Your task to perform on an android device: turn on notifications settings in the gmail app Image 0: 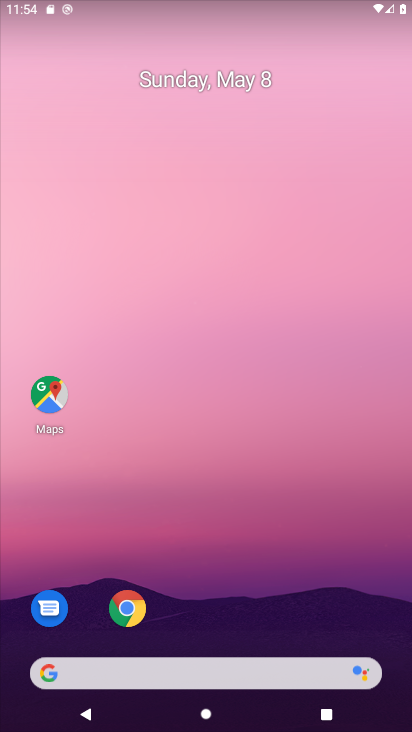
Step 0: drag from (264, 648) to (300, 269)
Your task to perform on an android device: turn on notifications settings in the gmail app Image 1: 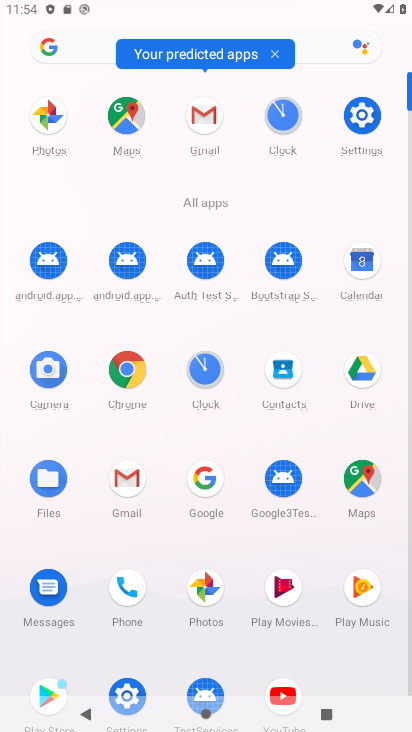
Step 1: click (123, 486)
Your task to perform on an android device: turn on notifications settings in the gmail app Image 2: 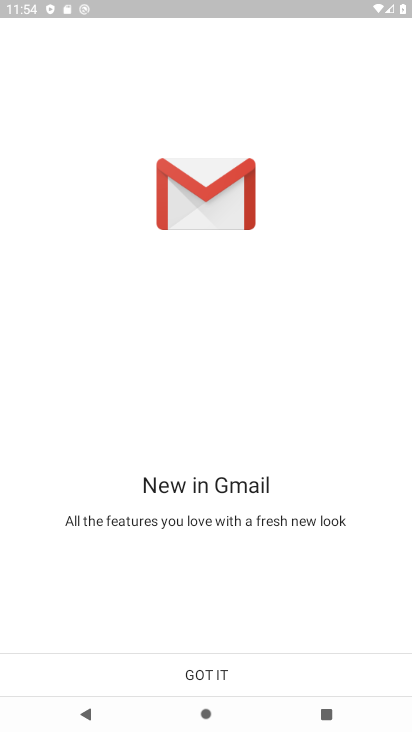
Step 2: click (292, 679)
Your task to perform on an android device: turn on notifications settings in the gmail app Image 3: 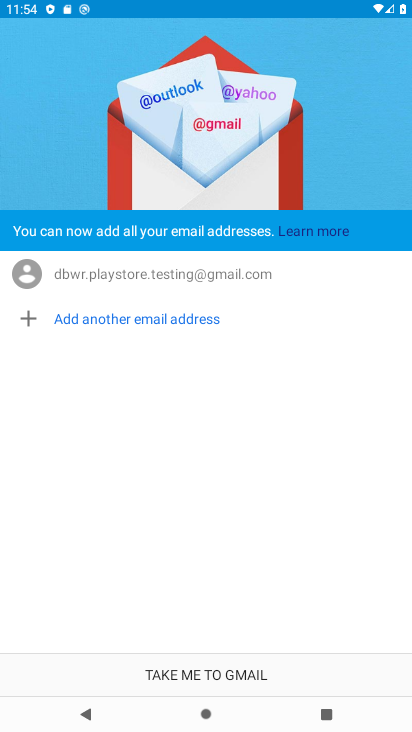
Step 3: click (292, 679)
Your task to perform on an android device: turn on notifications settings in the gmail app Image 4: 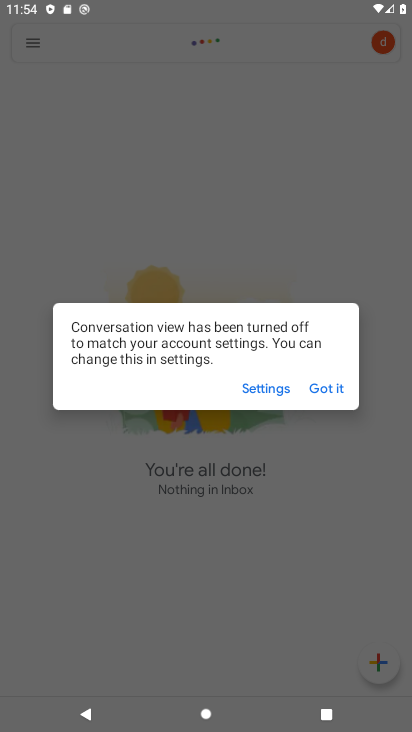
Step 4: click (328, 387)
Your task to perform on an android device: turn on notifications settings in the gmail app Image 5: 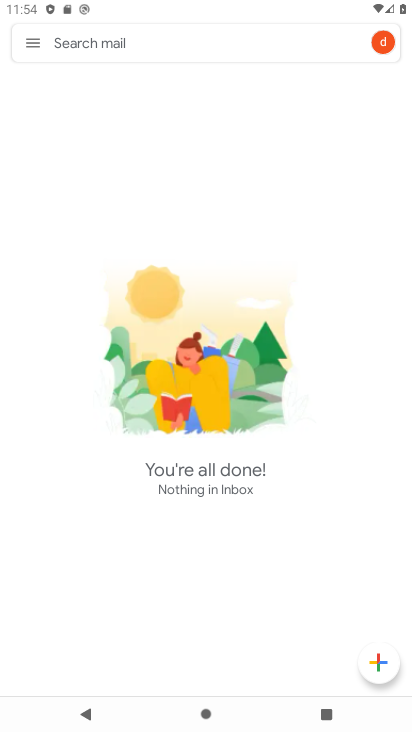
Step 5: click (38, 49)
Your task to perform on an android device: turn on notifications settings in the gmail app Image 6: 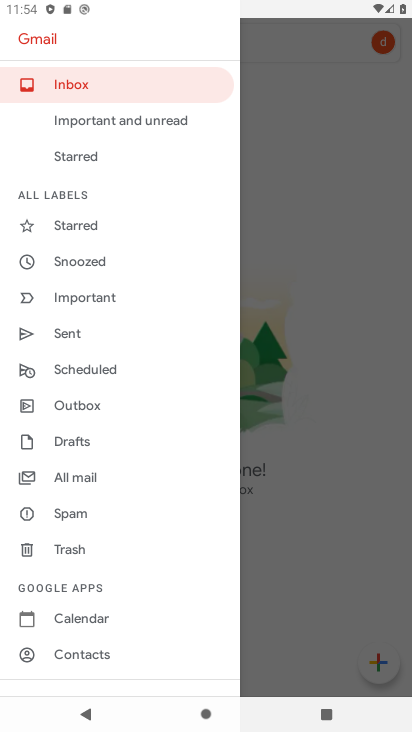
Step 6: drag from (147, 617) to (177, 384)
Your task to perform on an android device: turn on notifications settings in the gmail app Image 7: 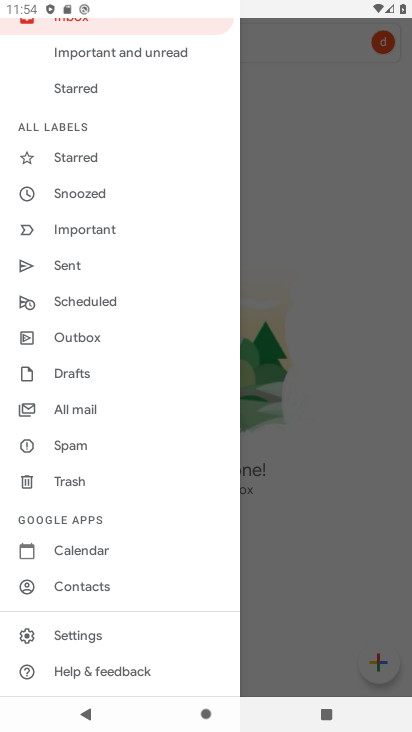
Step 7: click (118, 643)
Your task to perform on an android device: turn on notifications settings in the gmail app Image 8: 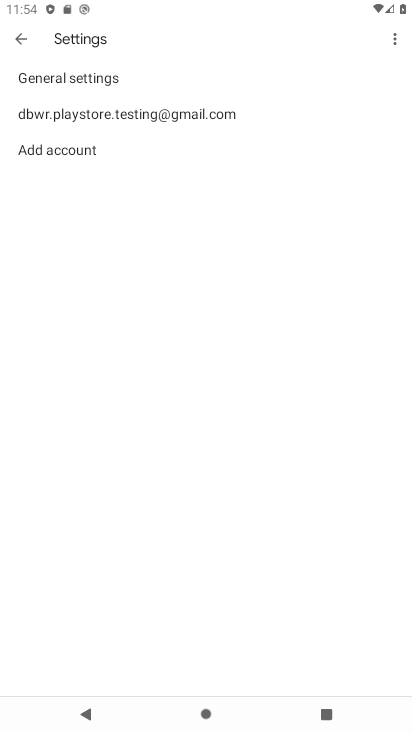
Step 8: click (313, 100)
Your task to perform on an android device: turn on notifications settings in the gmail app Image 9: 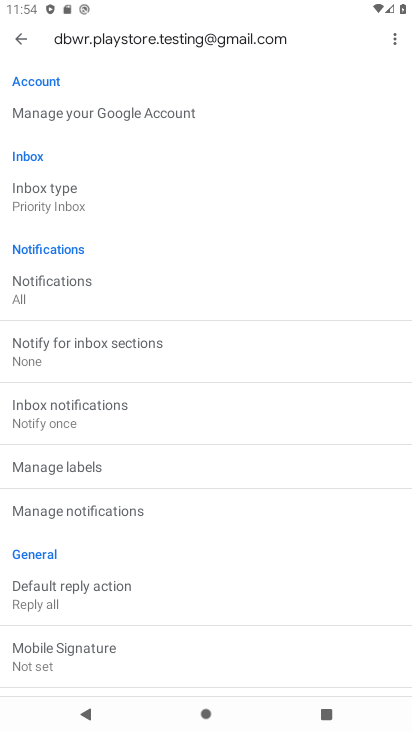
Step 9: click (234, 504)
Your task to perform on an android device: turn on notifications settings in the gmail app Image 10: 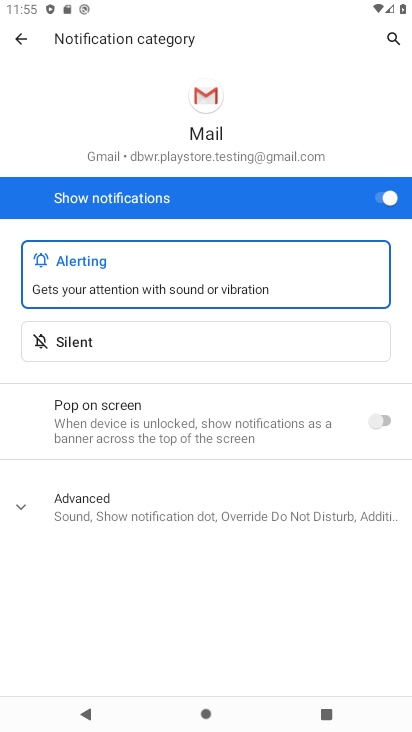
Step 10: task complete